Your task to perform on an android device: Go to Maps Image 0: 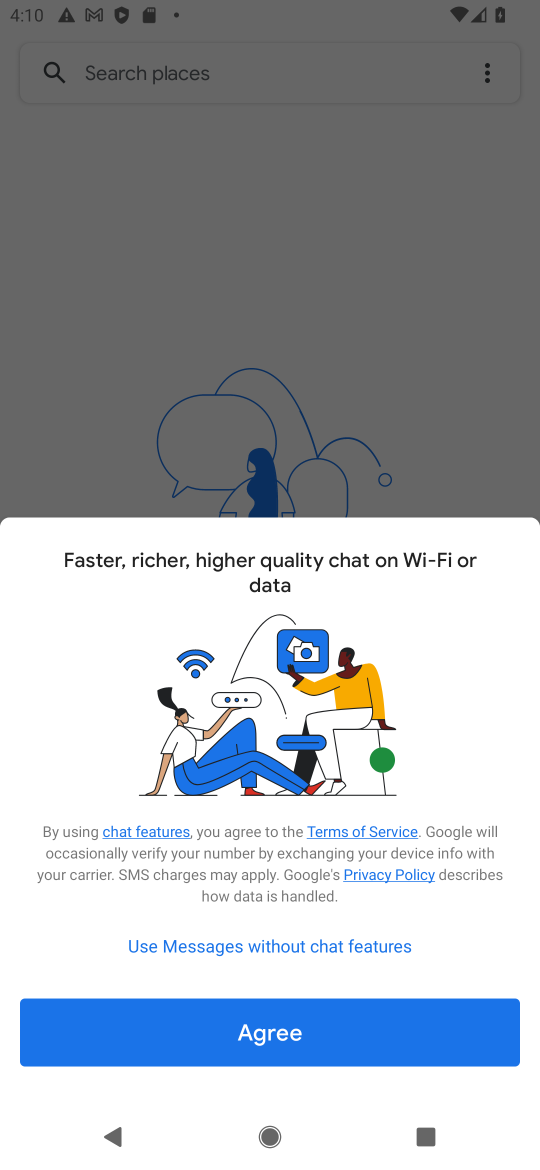
Step 0: press home button
Your task to perform on an android device: Go to Maps Image 1: 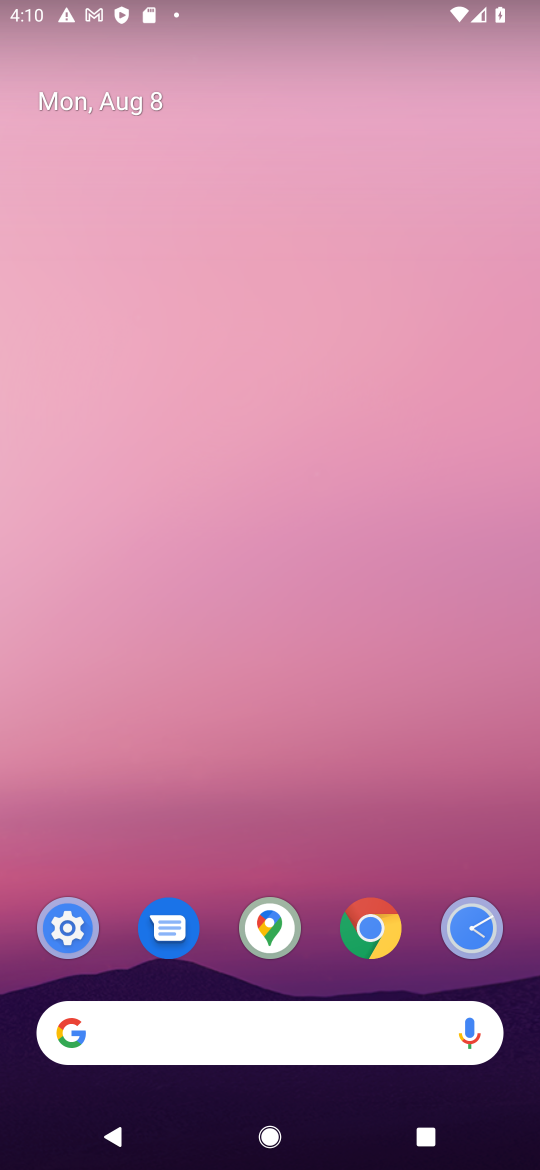
Step 1: click (286, 942)
Your task to perform on an android device: Go to Maps Image 2: 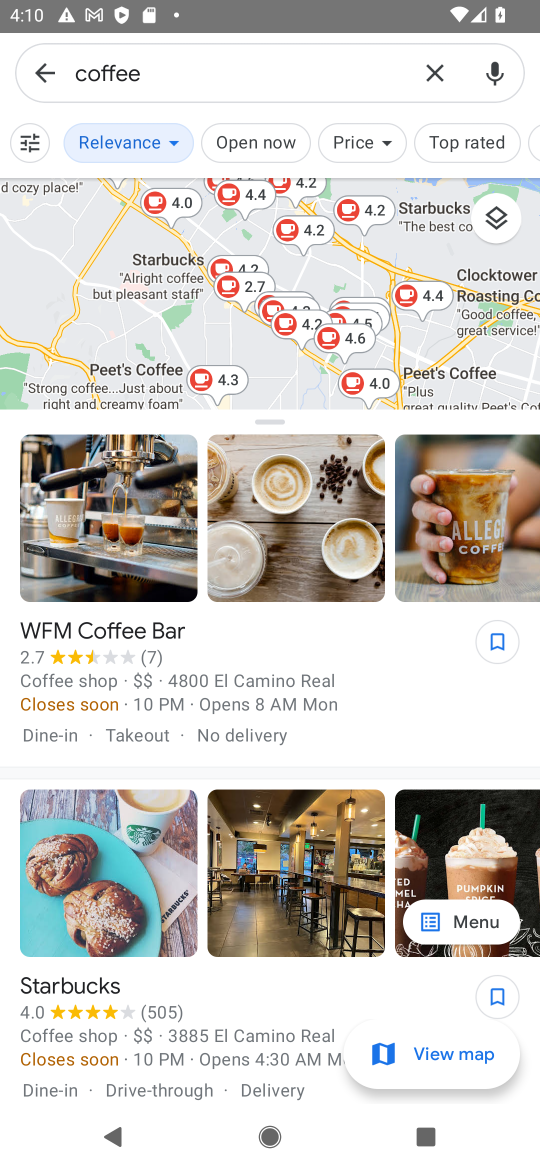
Step 2: task complete